Your task to perform on an android device: Go to network settings Image 0: 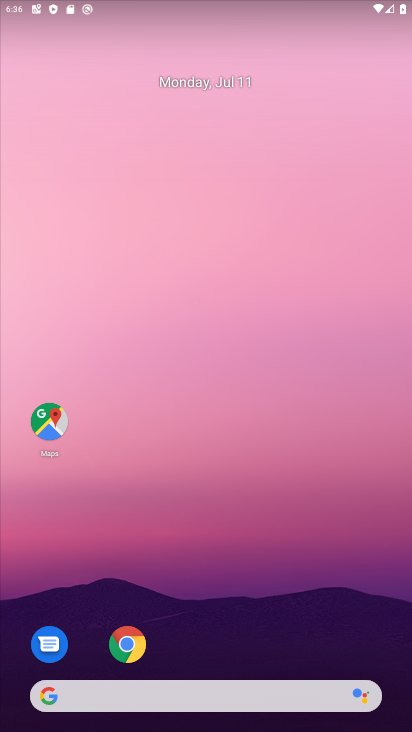
Step 0: drag from (290, 660) to (283, 105)
Your task to perform on an android device: Go to network settings Image 1: 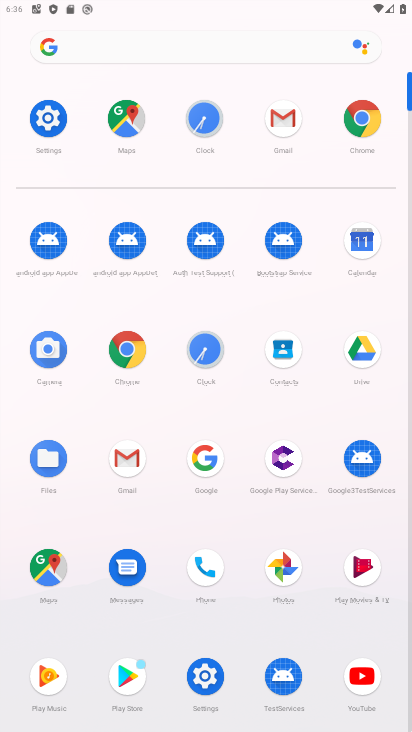
Step 1: click (54, 117)
Your task to perform on an android device: Go to network settings Image 2: 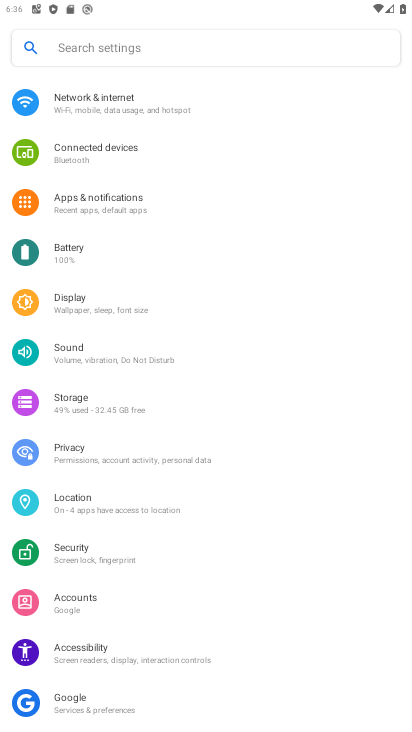
Step 2: click (126, 146)
Your task to perform on an android device: Go to network settings Image 3: 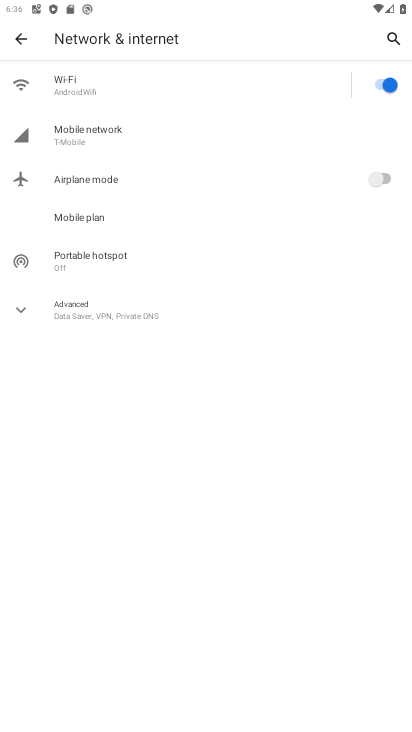
Step 3: click (117, 131)
Your task to perform on an android device: Go to network settings Image 4: 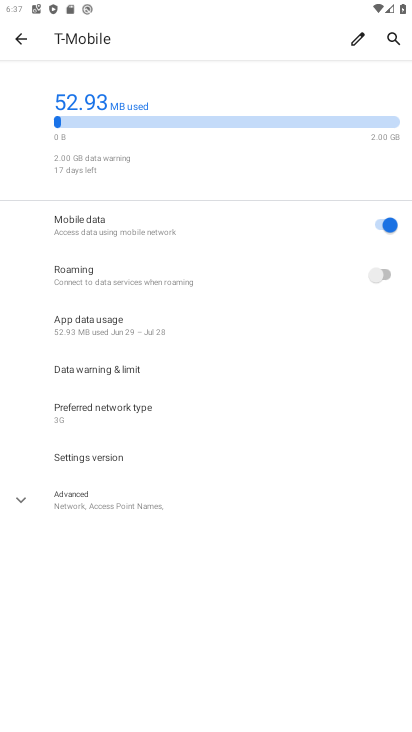
Step 4: task complete